Your task to perform on an android device: Go to battery settings Image 0: 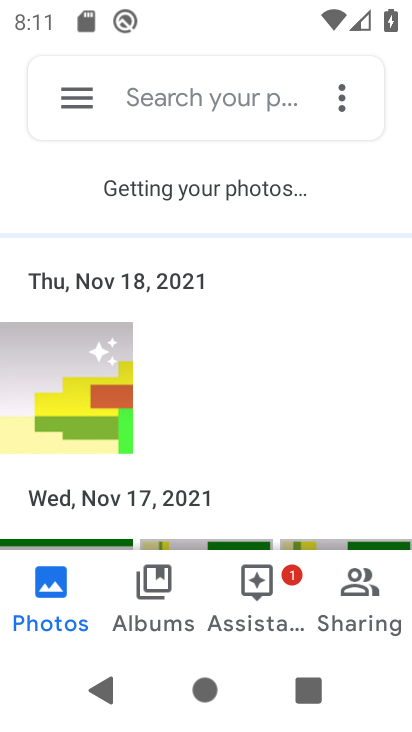
Step 0: press home button
Your task to perform on an android device: Go to battery settings Image 1: 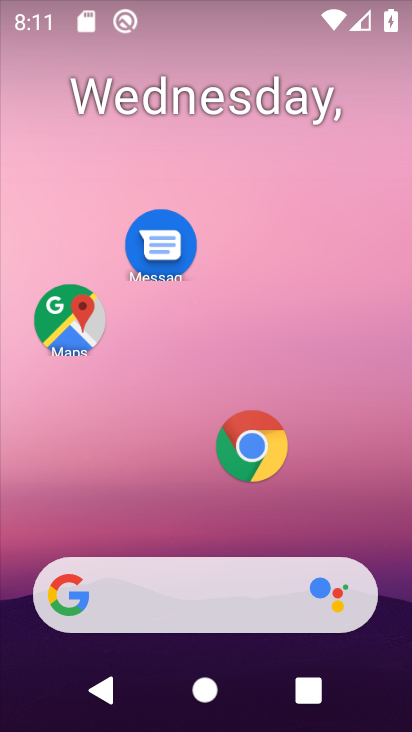
Step 1: drag from (182, 516) to (183, 67)
Your task to perform on an android device: Go to battery settings Image 2: 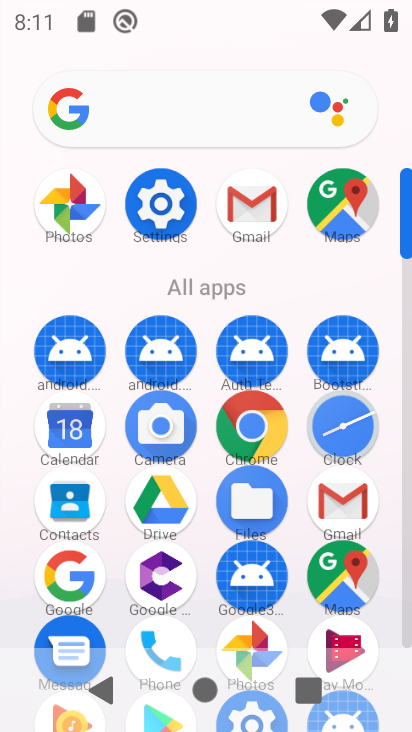
Step 2: click (154, 198)
Your task to perform on an android device: Go to battery settings Image 3: 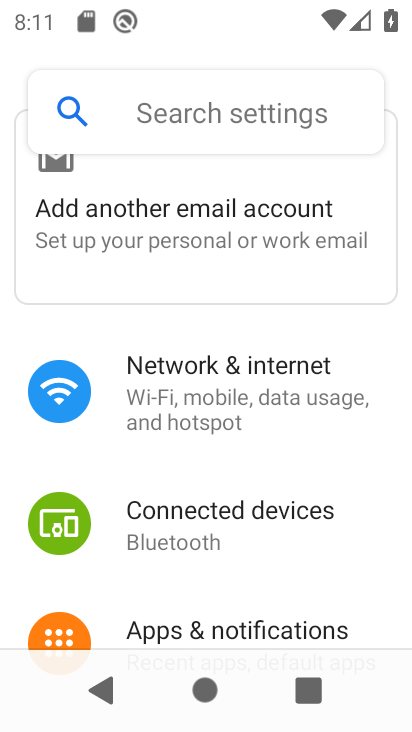
Step 3: drag from (189, 595) to (188, 188)
Your task to perform on an android device: Go to battery settings Image 4: 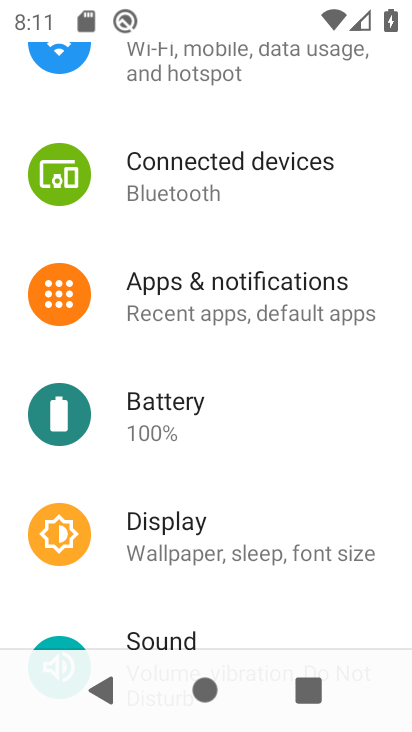
Step 4: click (212, 411)
Your task to perform on an android device: Go to battery settings Image 5: 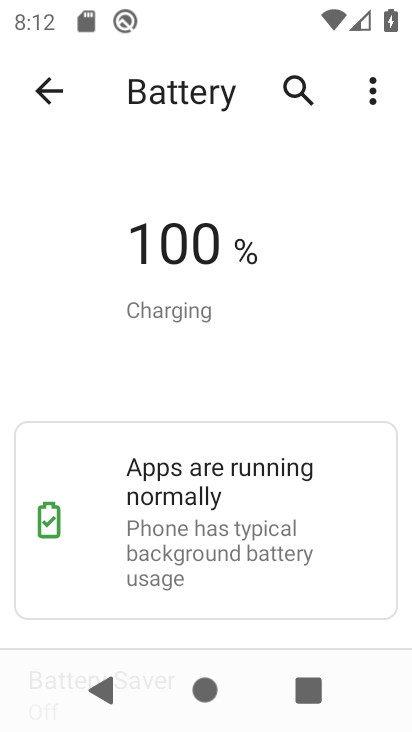
Step 5: task complete